Your task to perform on an android device: What's the weather like in Sydney? Image 0: 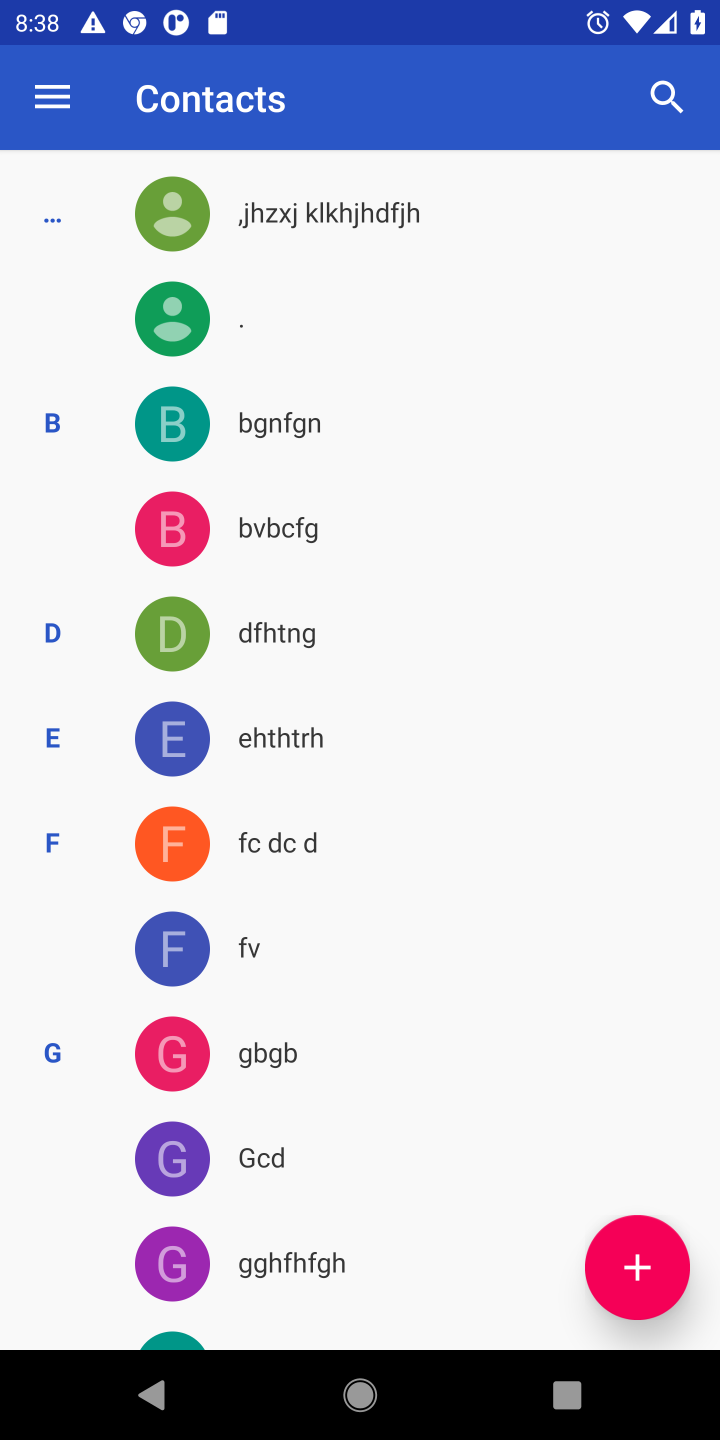
Step 0: press home button
Your task to perform on an android device: What's the weather like in Sydney? Image 1: 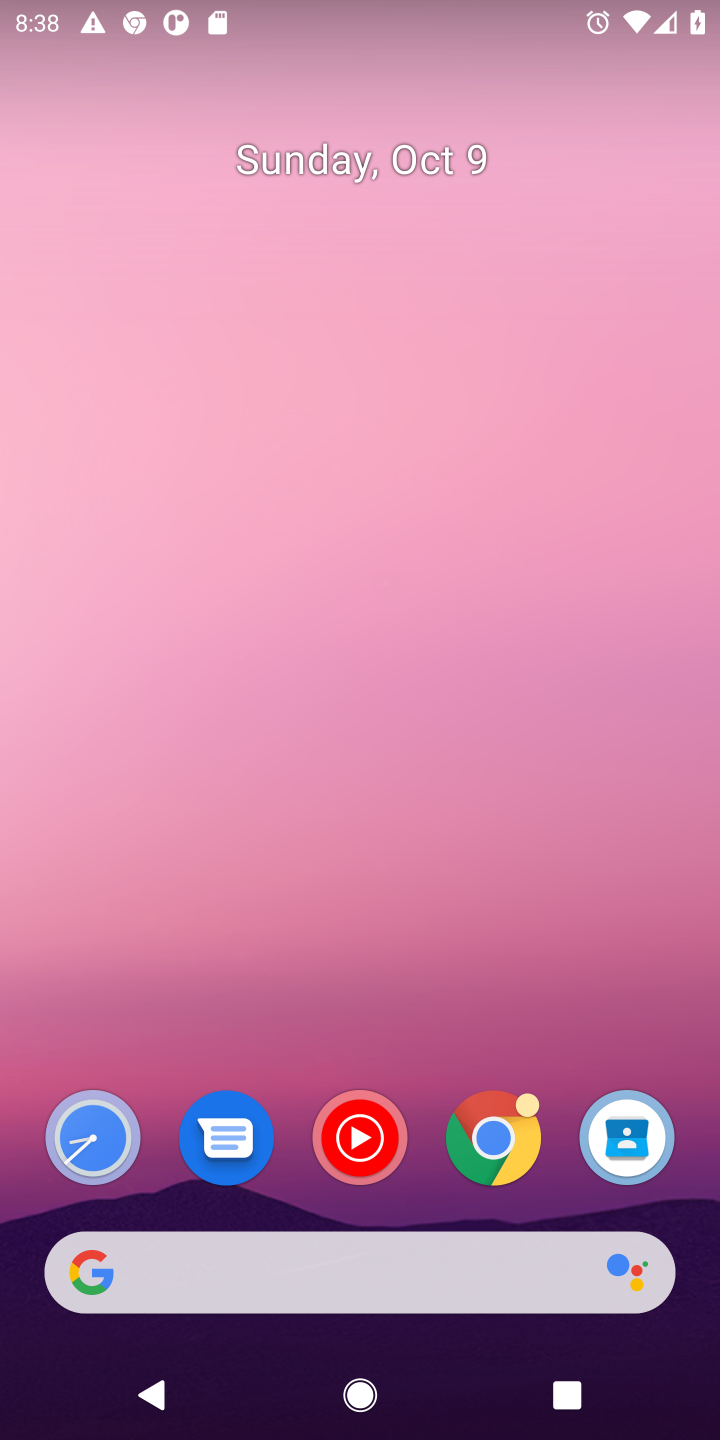
Step 1: drag from (294, 1264) to (325, 494)
Your task to perform on an android device: What's the weather like in Sydney? Image 2: 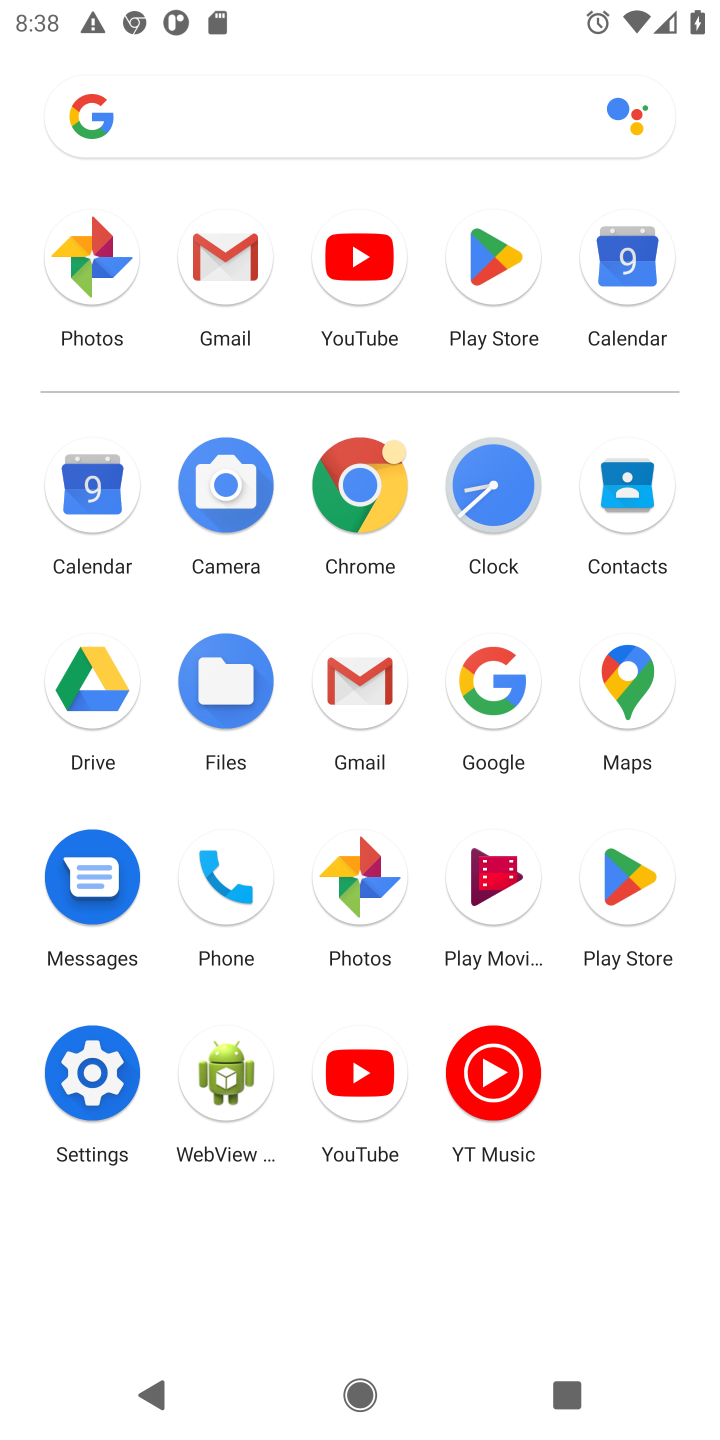
Step 2: click (491, 666)
Your task to perform on an android device: What's the weather like in Sydney? Image 3: 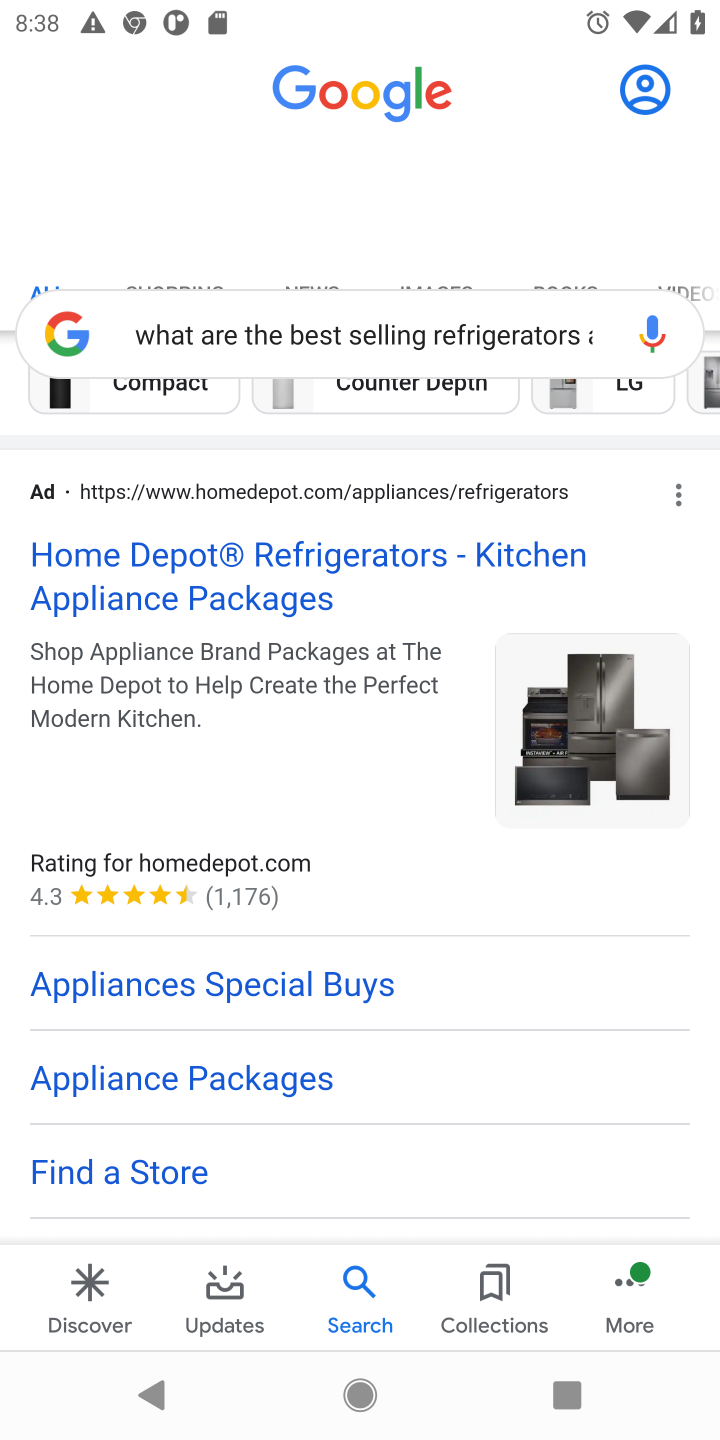
Step 3: click (370, 310)
Your task to perform on an android device: What's the weather like in Sydney? Image 4: 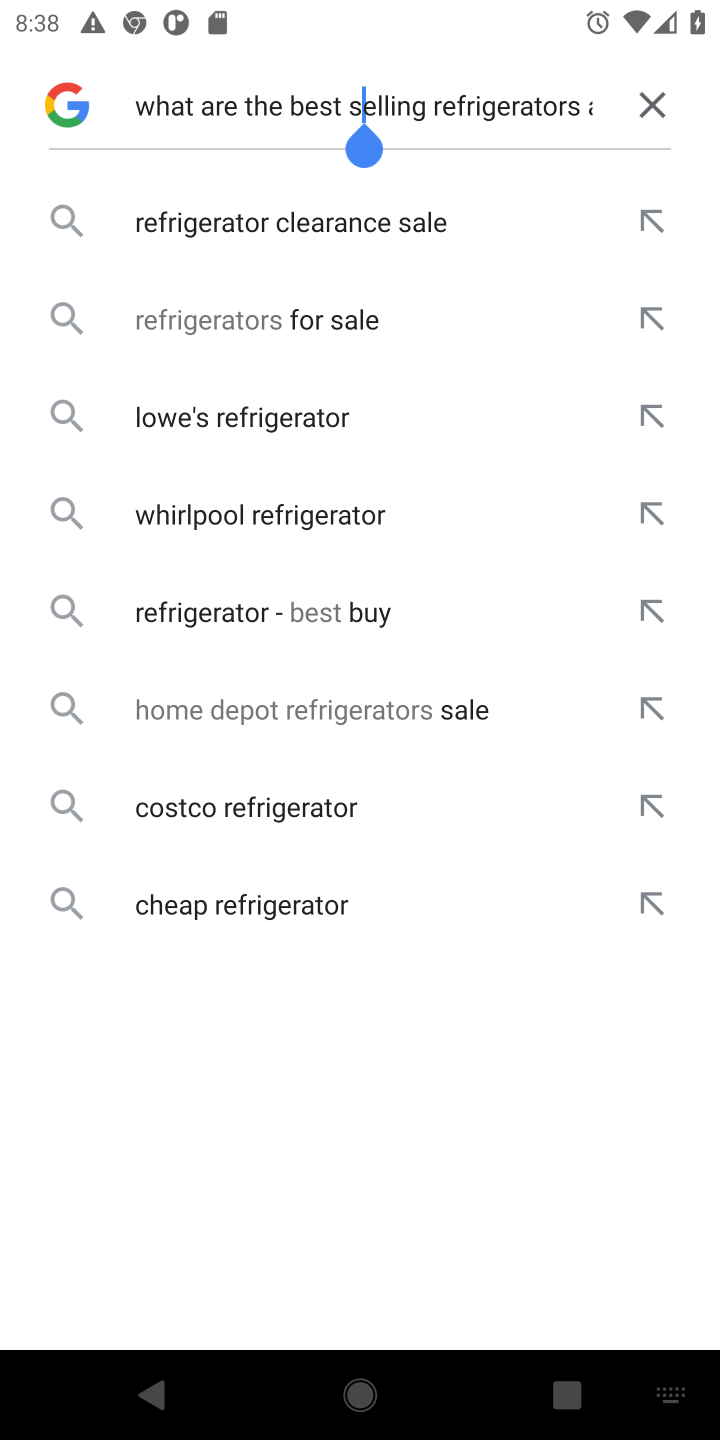
Step 4: click (663, 95)
Your task to perform on an android device: What's the weather like in Sydney? Image 5: 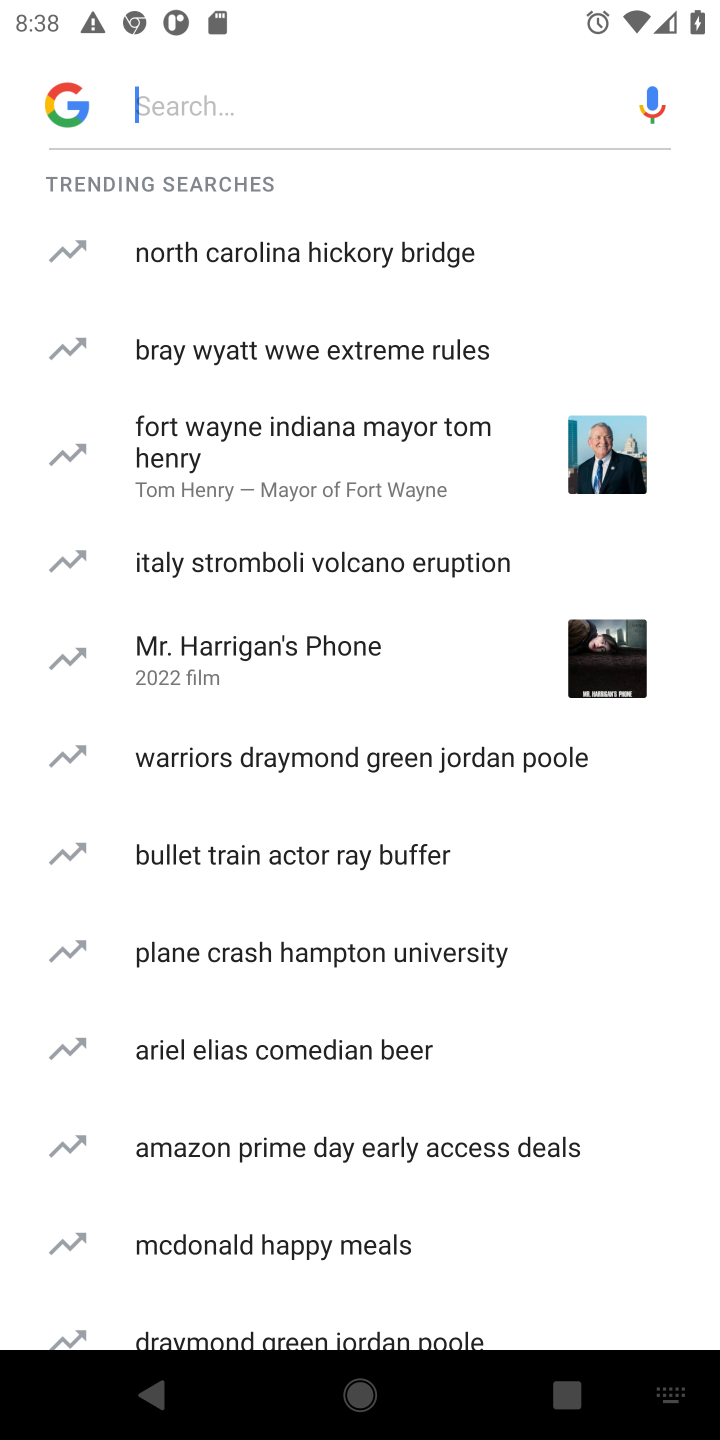
Step 5: click (328, 106)
Your task to perform on an android device: What's the weather like in Sydney? Image 6: 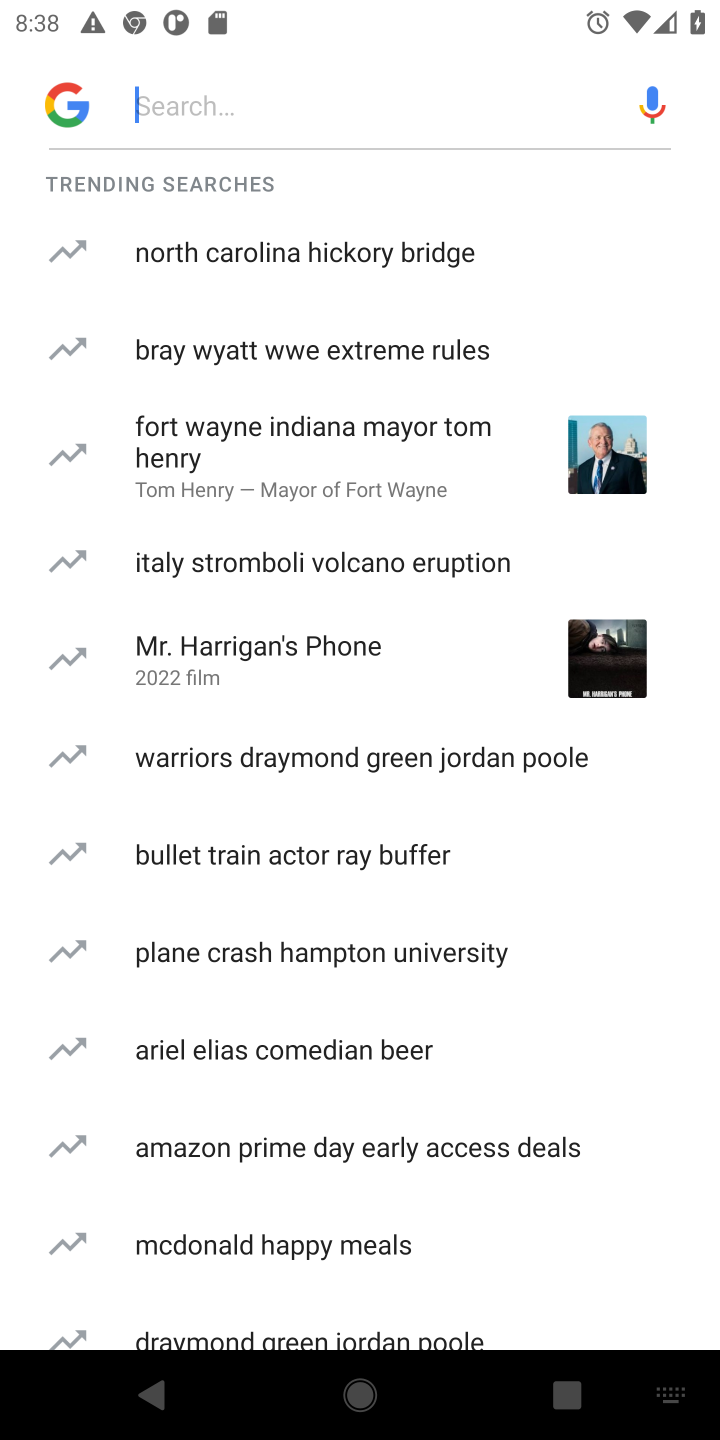
Step 6: type "What's the weather like in Sydney? "
Your task to perform on an android device: What's the weather like in Sydney? Image 7: 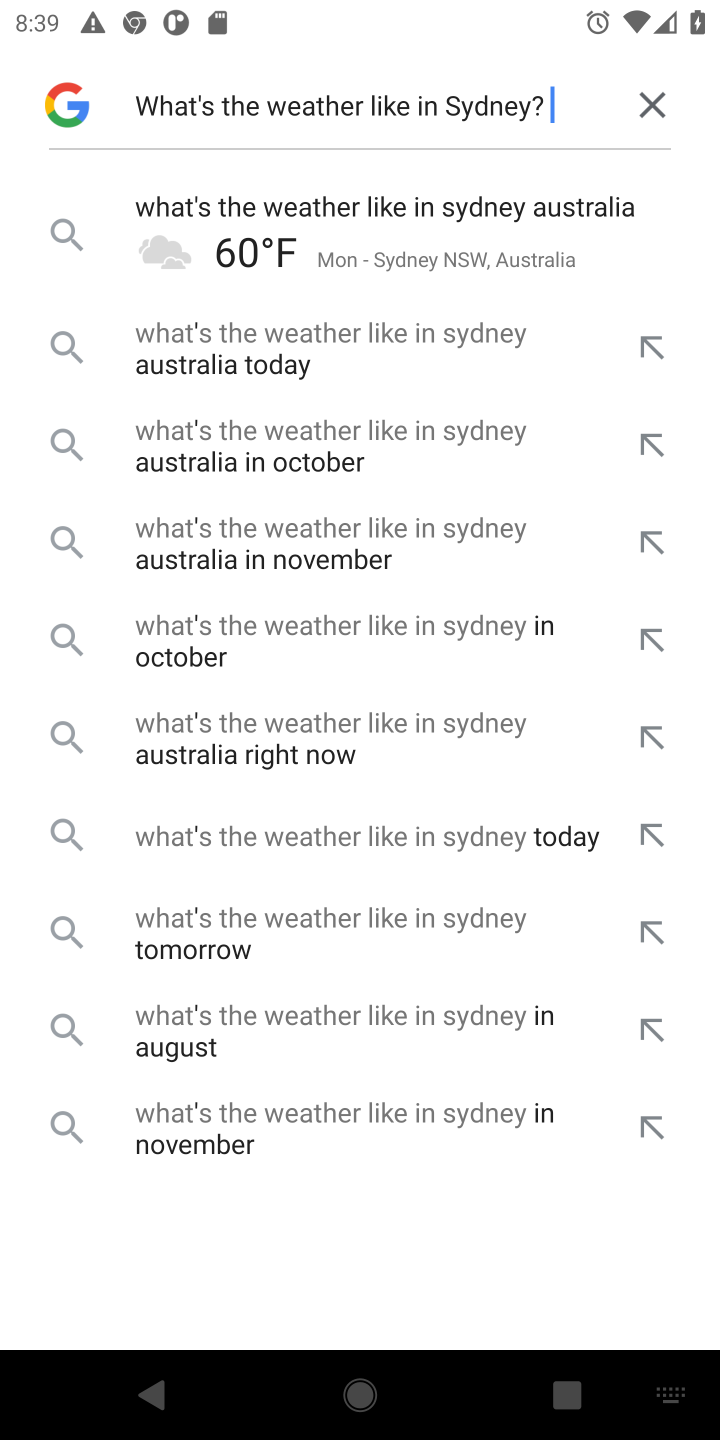
Step 7: click (202, 221)
Your task to perform on an android device: What's the weather like in Sydney? Image 8: 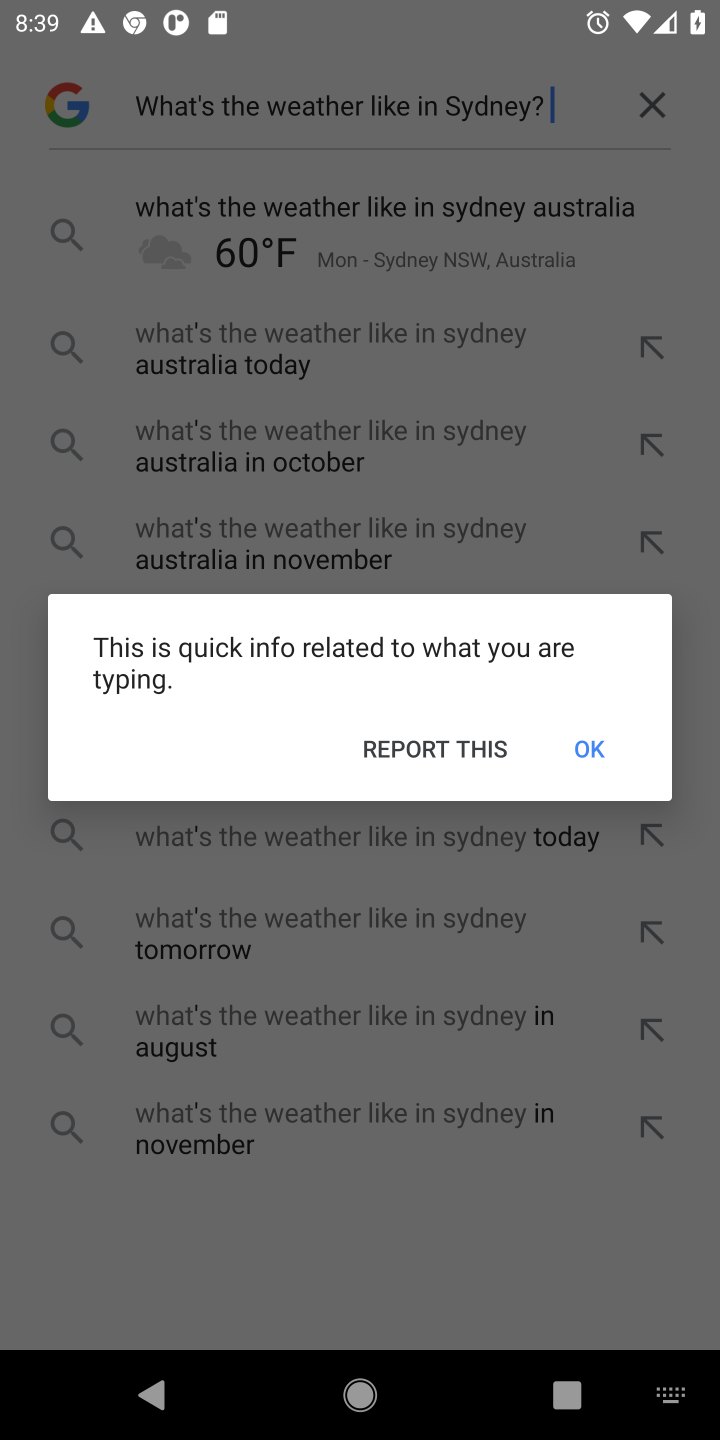
Step 8: click (603, 758)
Your task to perform on an android device: What's the weather like in Sydney? Image 9: 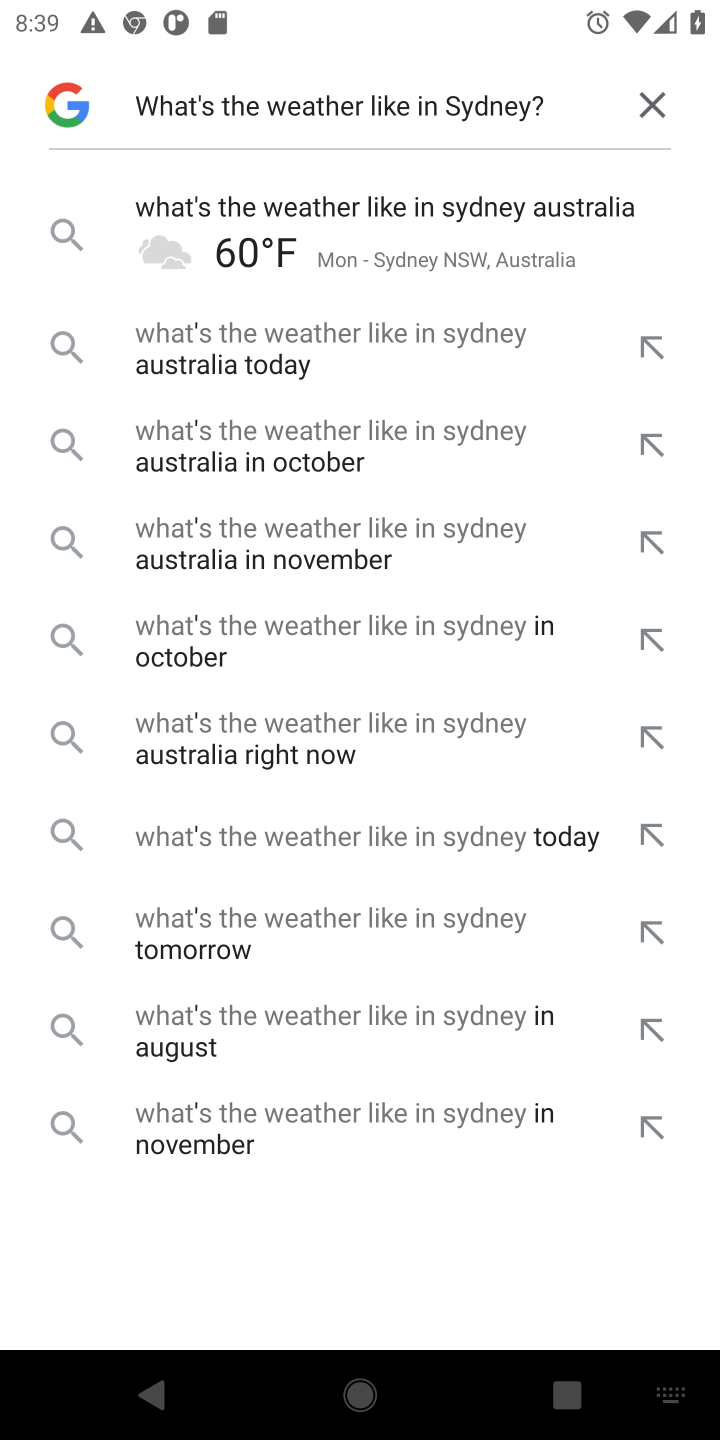
Step 9: click (252, 368)
Your task to perform on an android device: What's the weather like in Sydney? Image 10: 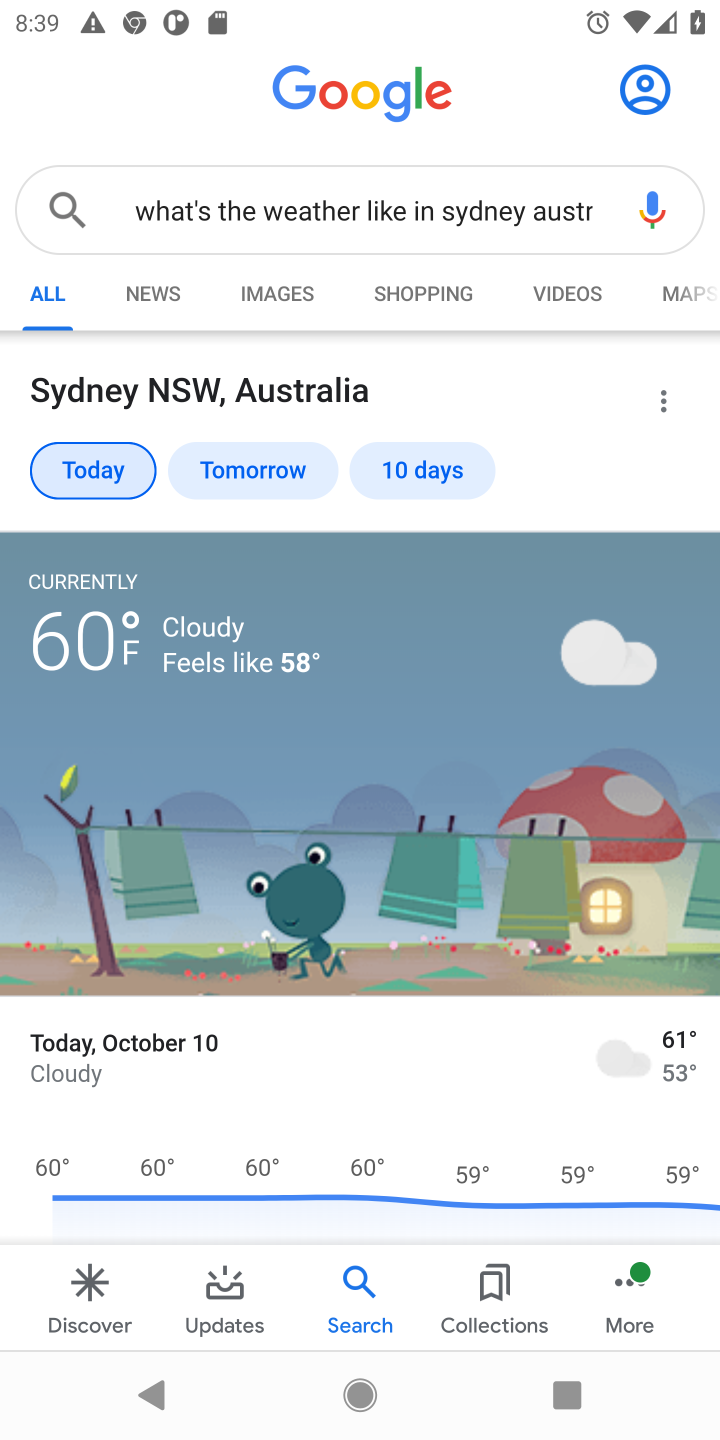
Step 10: task complete